Your task to perform on an android device: Open the calendar app, open the side menu, and click the "Day" option Image 0: 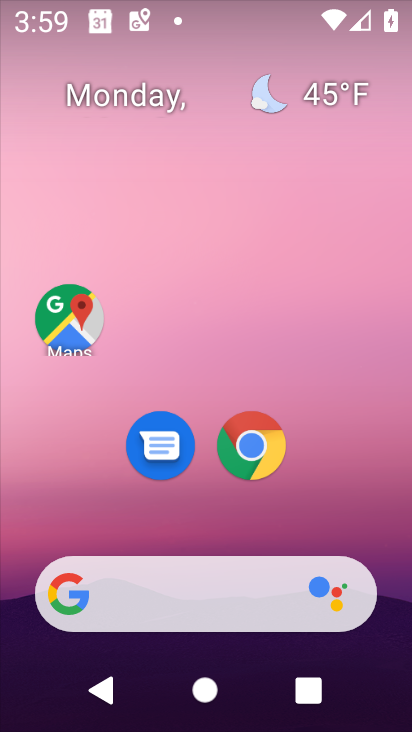
Step 0: drag from (298, 520) to (288, 33)
Your task to perform on an android device: Open the calendar app, open the side menu, and click the "Day" option Image 1: 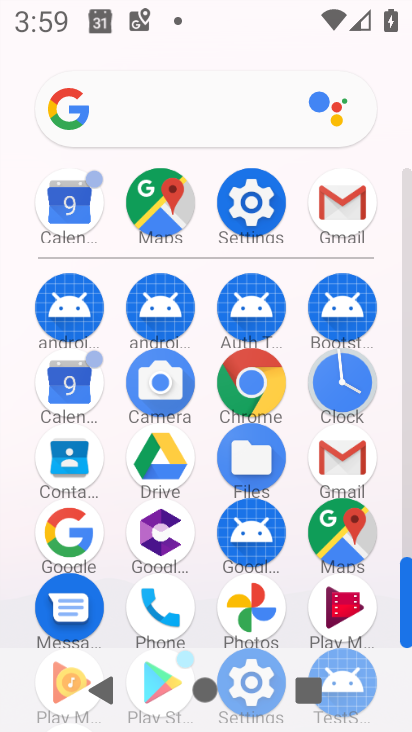
Step 1: click (85, 391)
Your task to perform on an android device: Open the calendar app, open the side menu, and click the "Day" option Image 2: 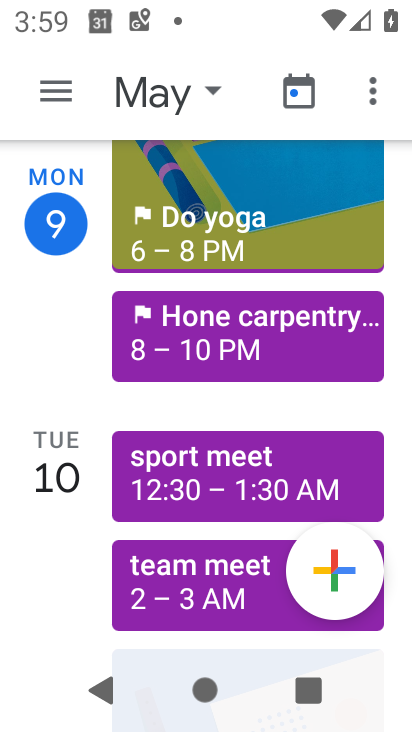
Step 2: click (47, 102)
Your task to perform on an android device: Open the calendar app, open the side menu, and click the "Day" option Image 3: 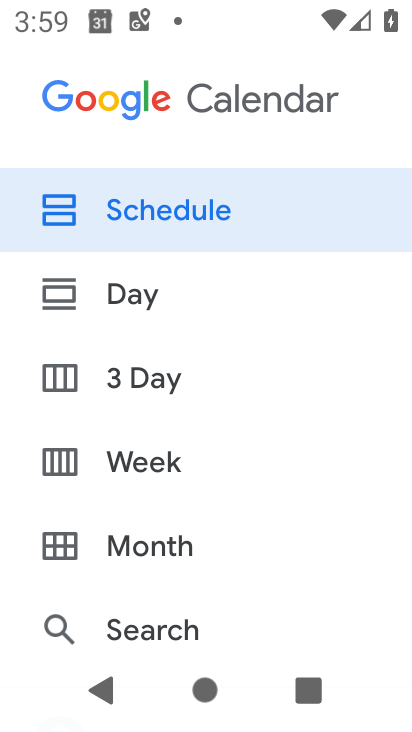
Step 3: click (166, 306)
Your task to perform on an android device: Open the calendar app, open the side menu, and click the "Day" option Image 4: 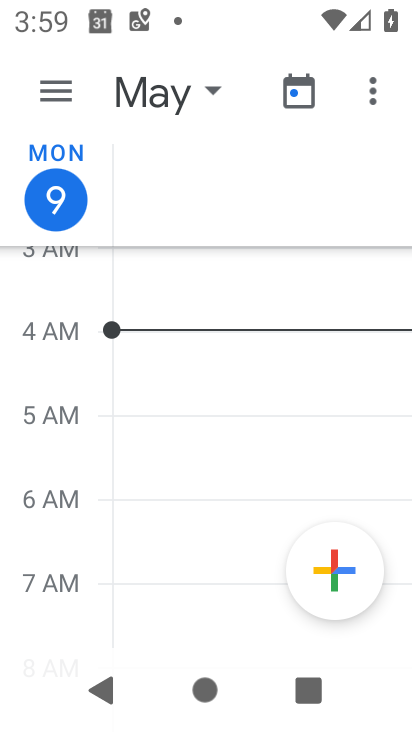
Step 4: task complete